Your task to perform on an android device: turn on location history Image 0: 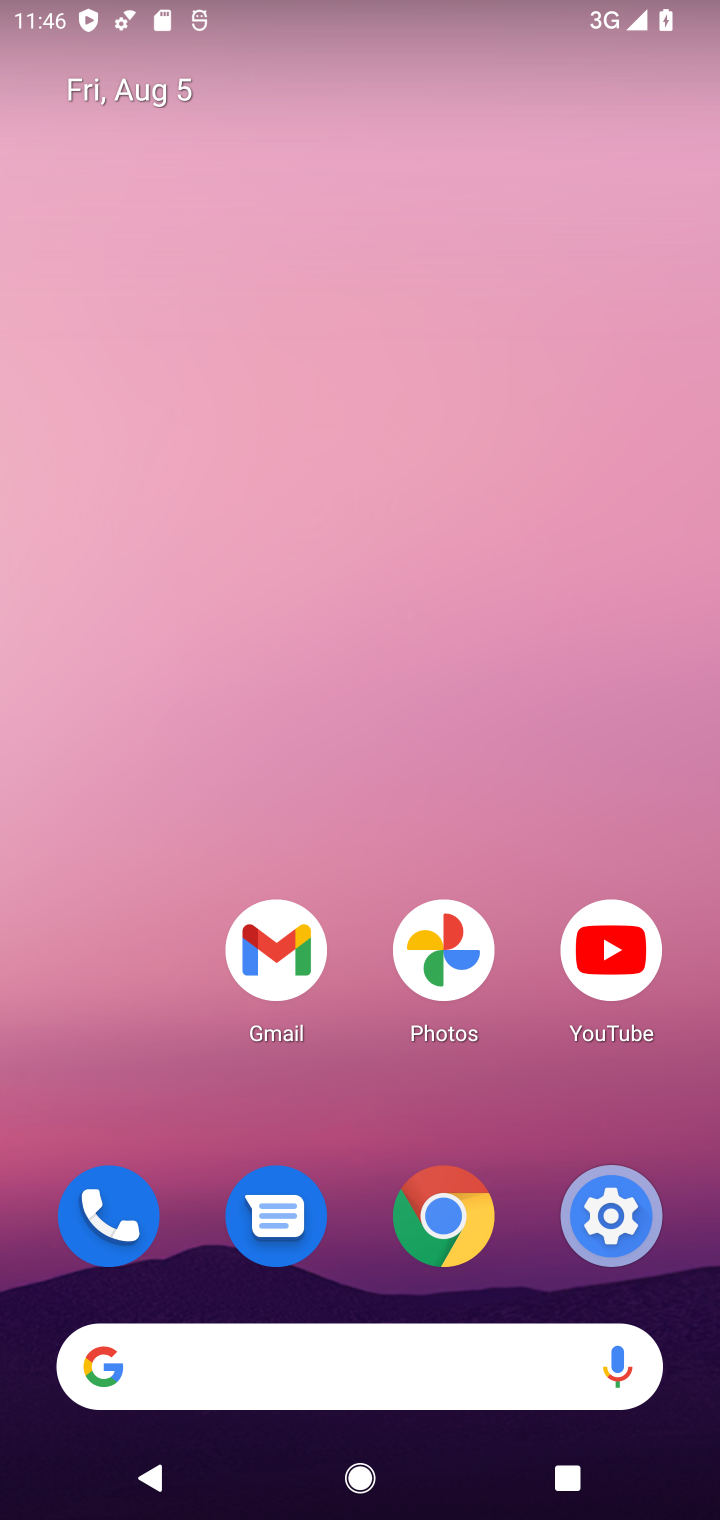
Step 0: drag from (444, 1357) to (426, 250)
Your task to perform on an android device: turn on location history Image 1: 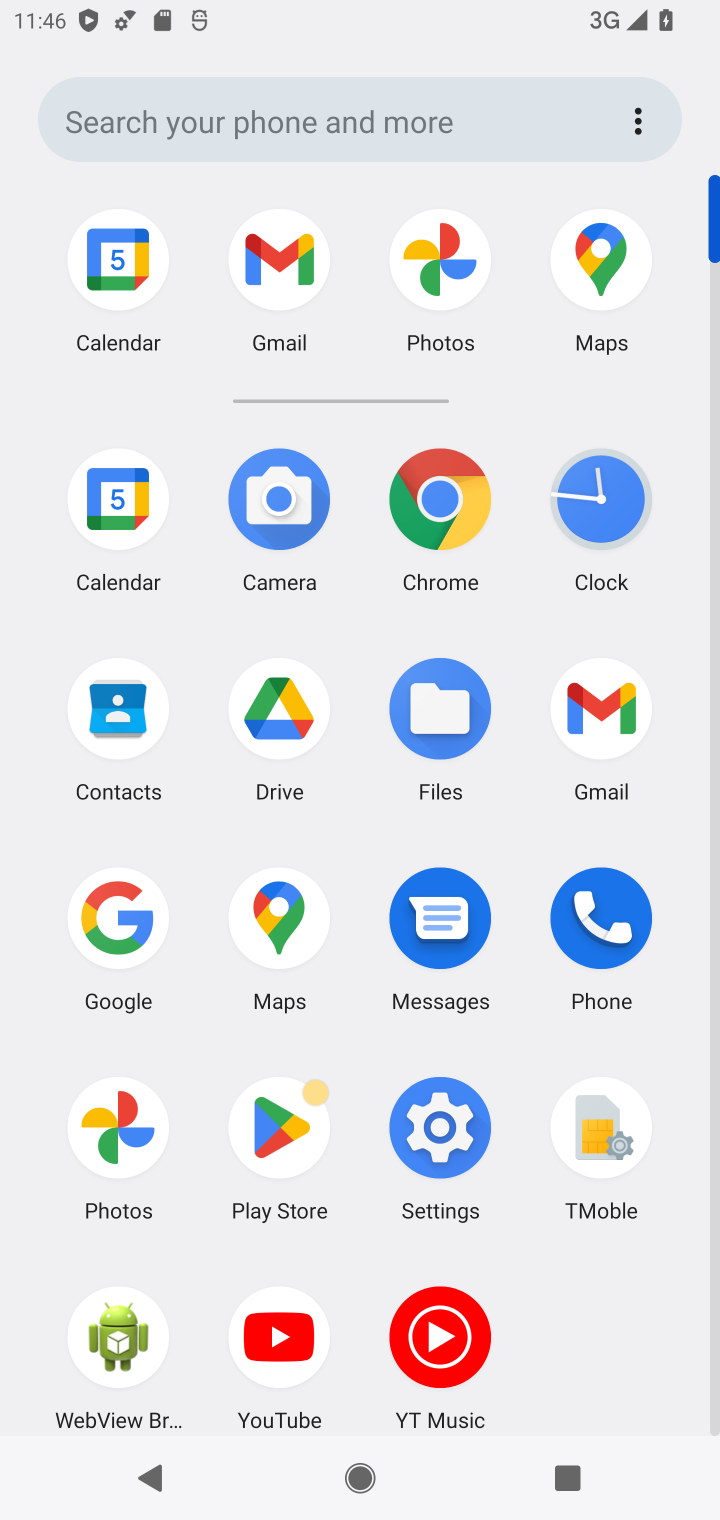
Step 1: click (445, 1126)
Your task to perform on an android device: turn on location history Image 2: 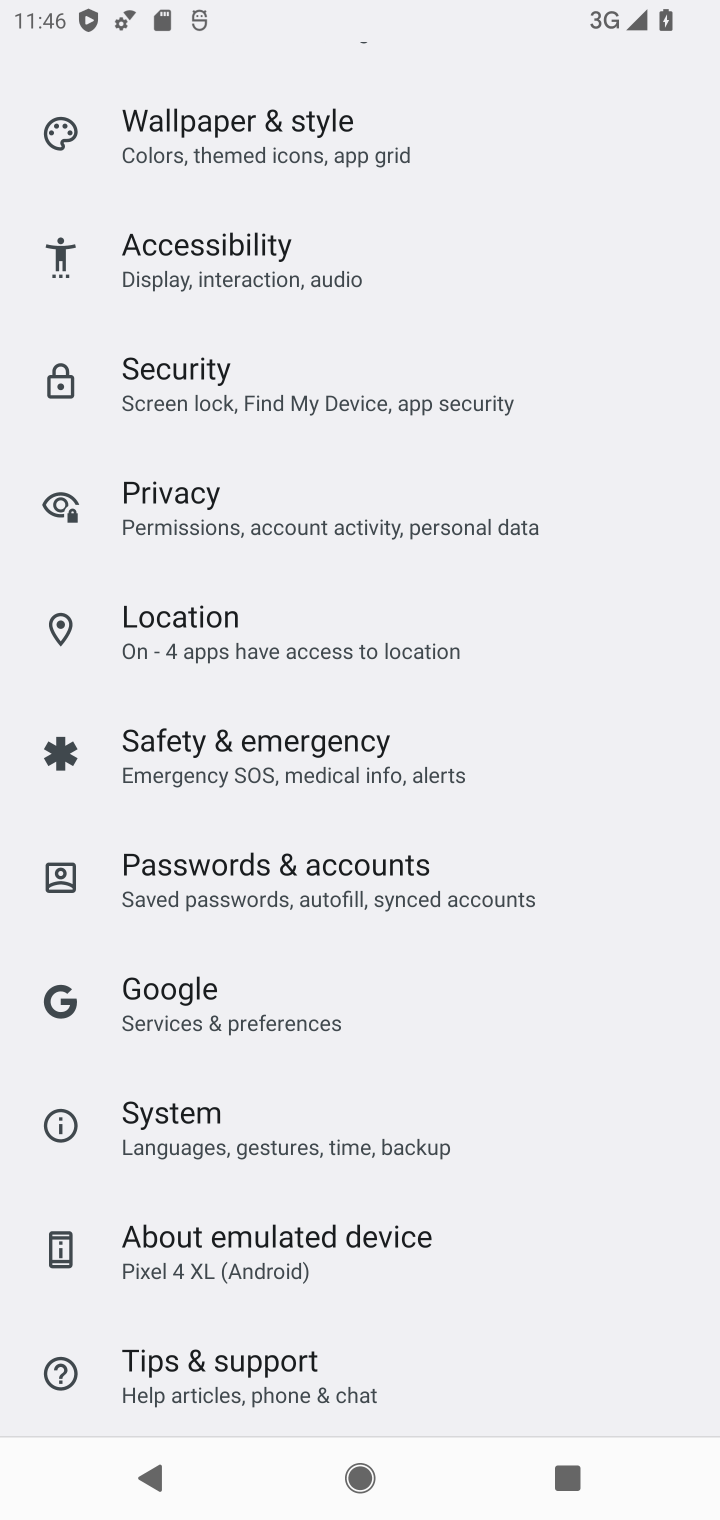
Step 2: click (226, 646)
Your task to perform on an android device: turn on location history Image 3: 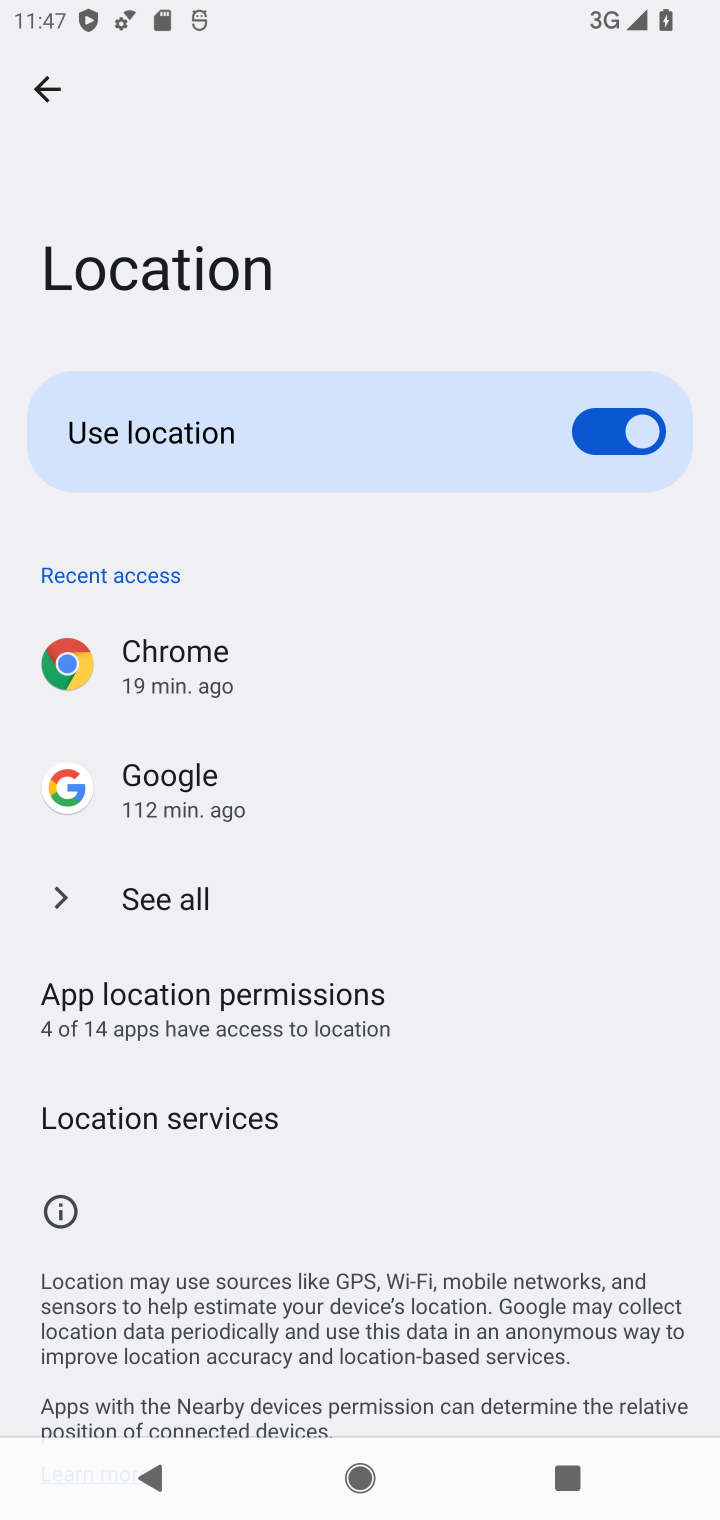
Step 3: click (242, 1106)
Your task to perform on an android device: turn on location history Image 4: 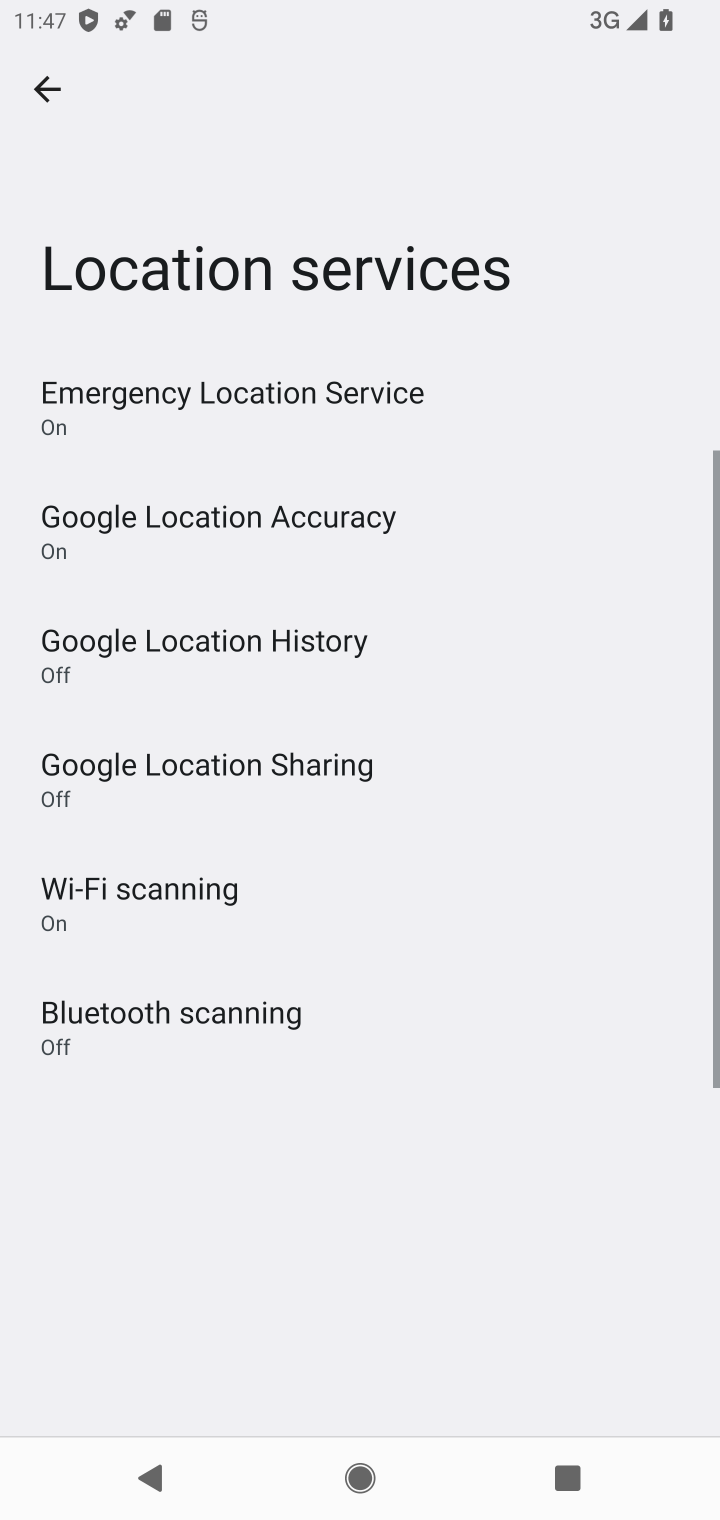
Step 4: click (381, 643)
Your task to perform on an android device: turn on location history Image 5: 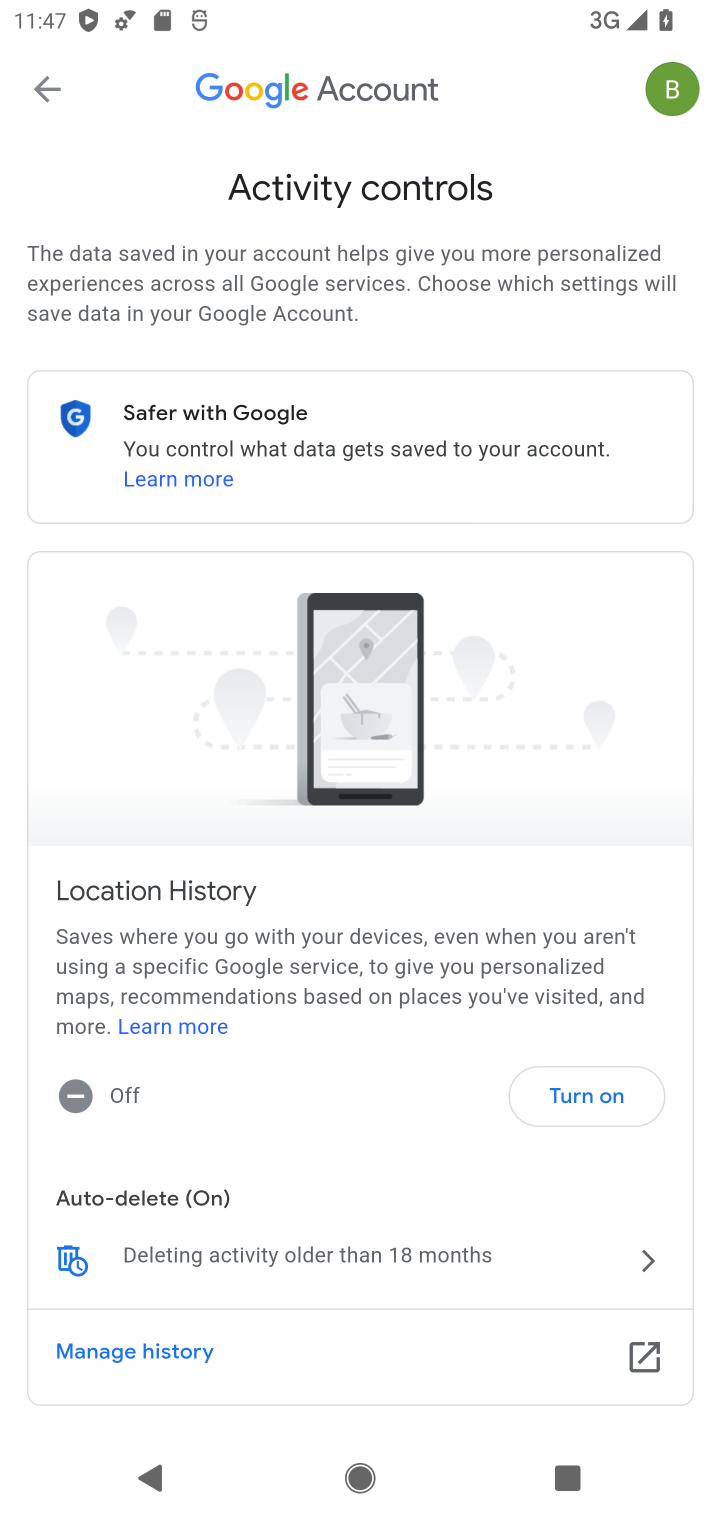
Step 5: click (592, 1091)
Your task to perform on an android device: turn on location history Image 6: 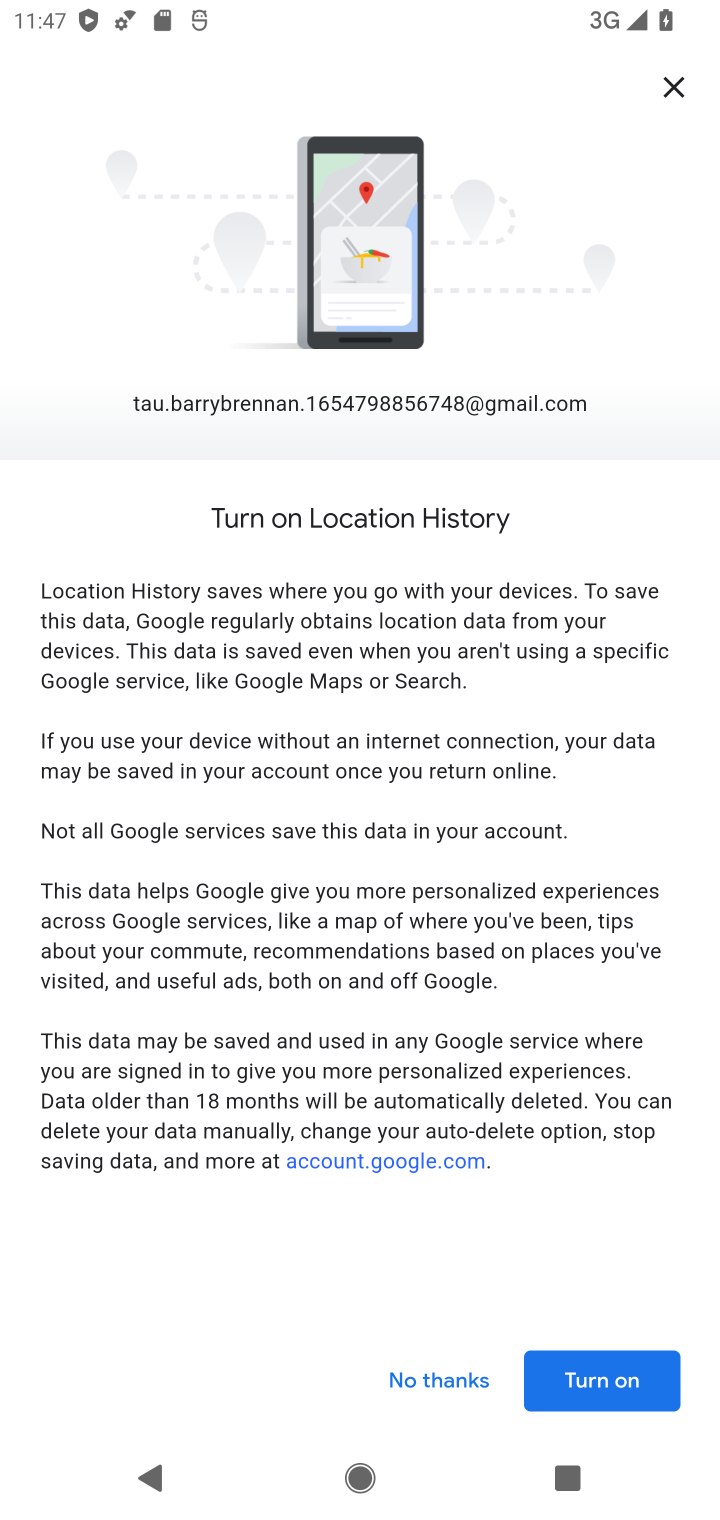
Step 6: click (611, 1383)
Your task to perform on an android device: turn on location history Image 7: 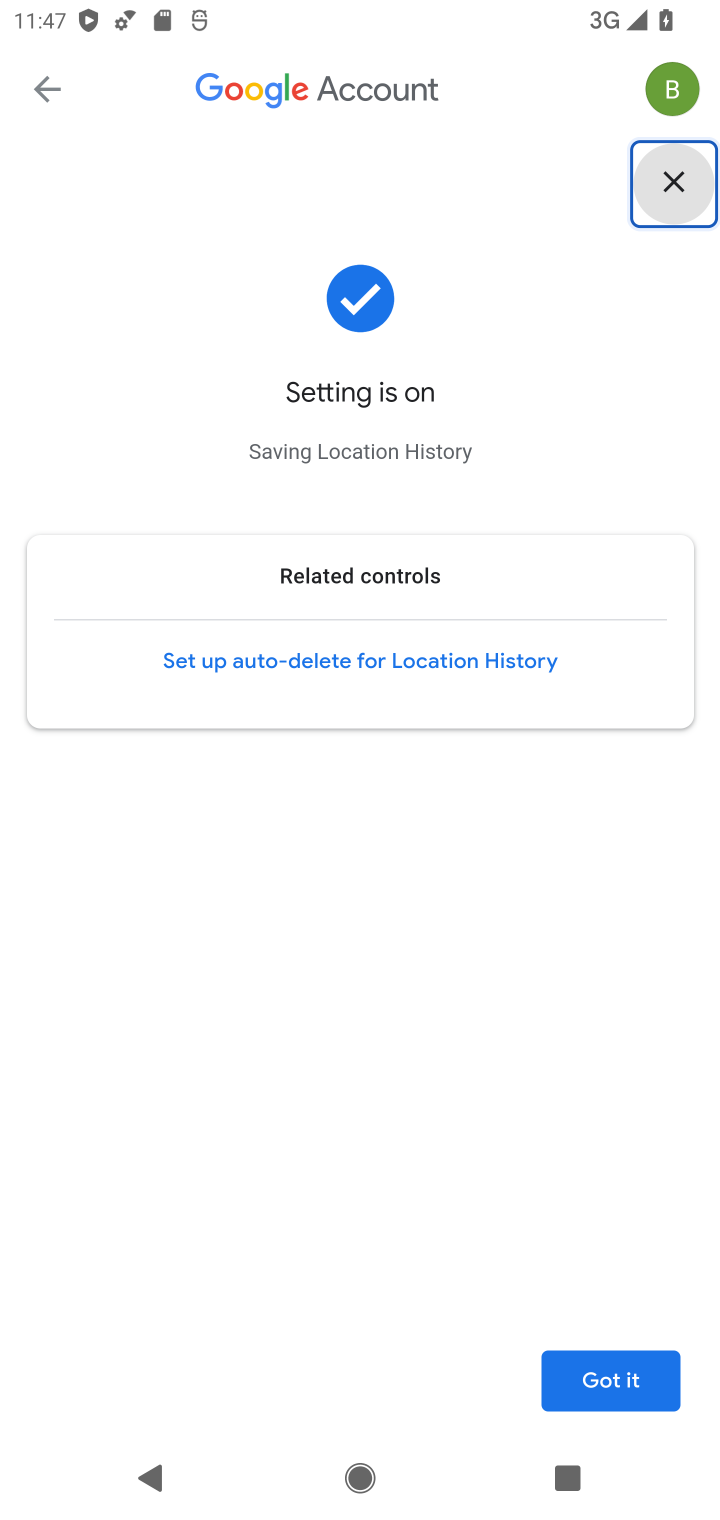
Step 7: task complete